Your task to perform on an android device: turn on data saver in the chrome app Image 0: 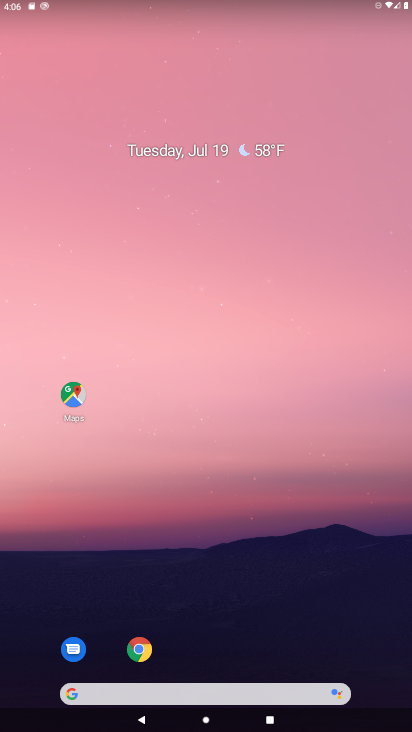
Step 0: click (138, 652)
Your task to perform on an android device: turn on data saver in the chrome app Image 1: 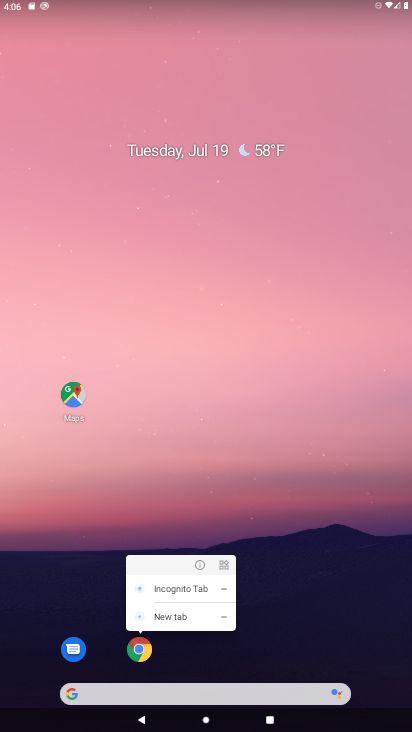
Step 1: click (138, 653)
Your task to perform on an android device: turn on data saver in the chrome app Image 2: 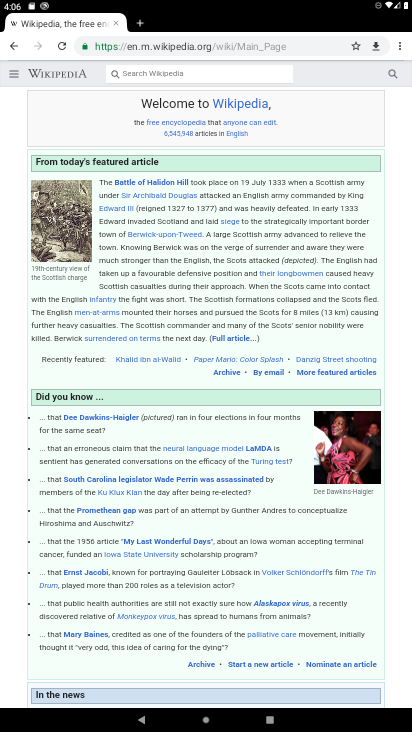
Step 2: click (400, 45)
Your task to perform on an android device: turn on data saver in the chrome app Image 3: 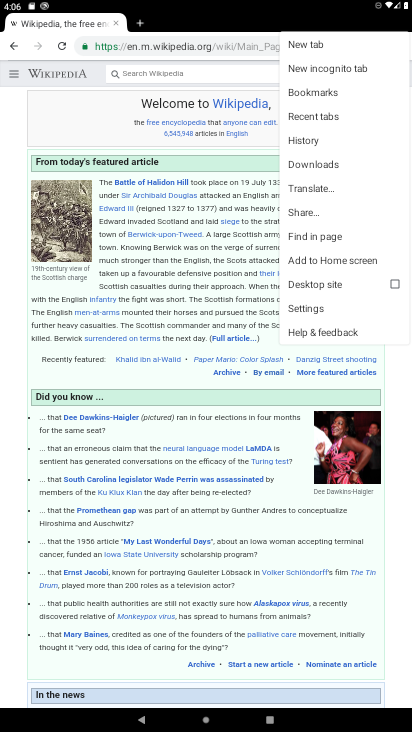
Step 3: click (306, 307)
Your task to perform on an android device: turn on data saver in the chrome app Image 4: 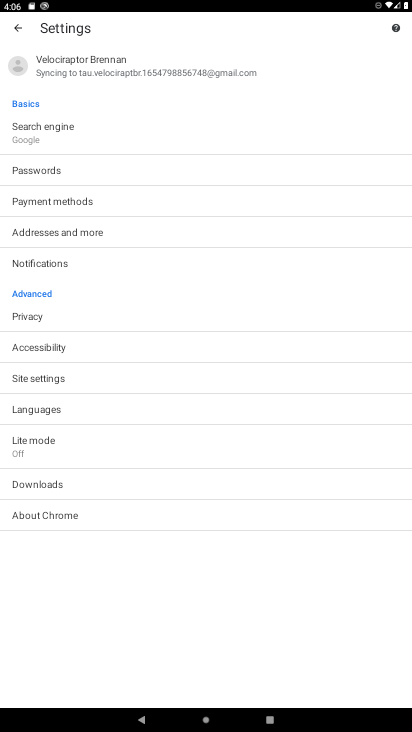
Step 4: click (33, 440)
Your task to perform on an android device: turn on data saver in the chrome app Image 5: 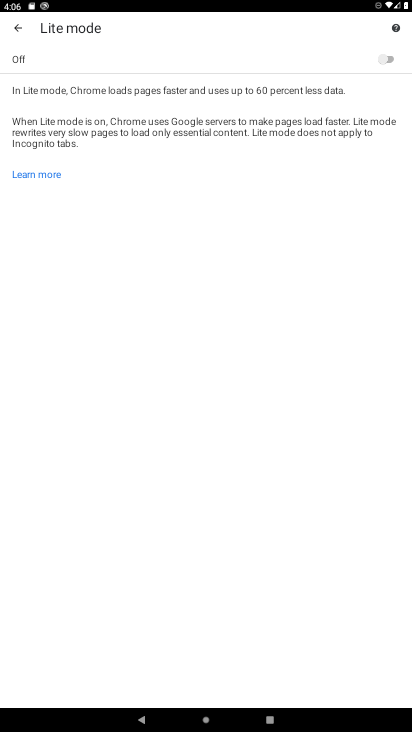
Step 5: click (393, 61)
Your task to perform on an android device: turn on data saver in the chrome app Image 6: 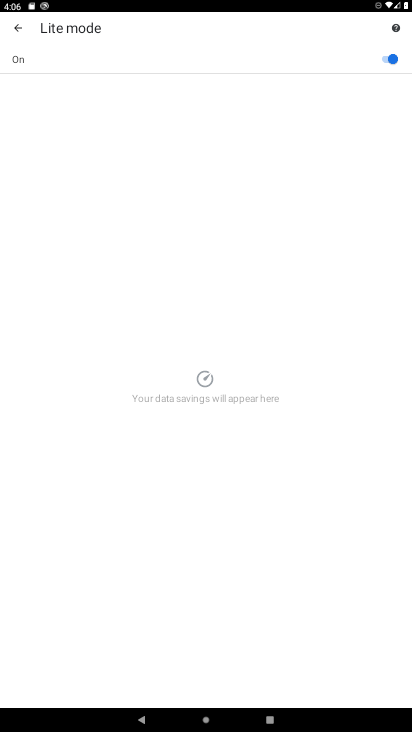
Step 6: task complete